Your task to perform on an android device: change timer sound Image 0: 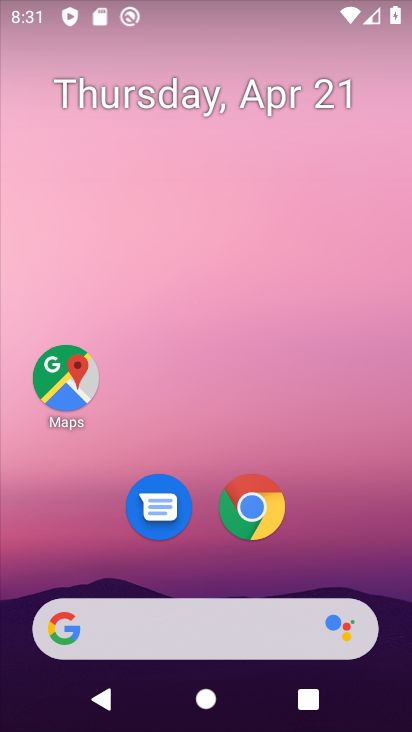
Step 0: drag from (193, 595) to (213, 237)
Your task to perform on an android device: change timer sound Image 1: 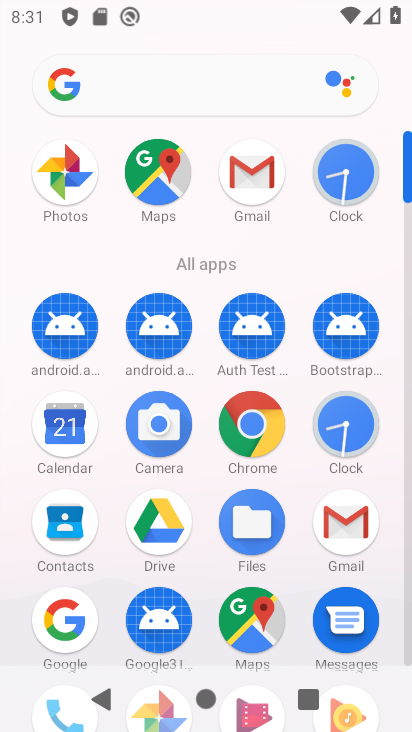
Step 1: click (352, 183)
Your task to perform on an android device: change timer sound Image 2: 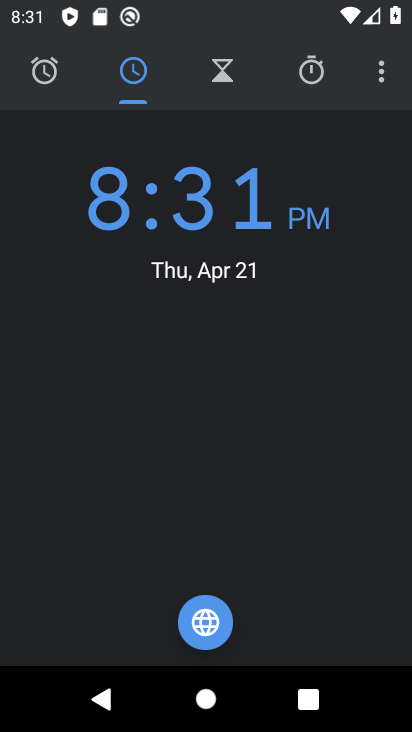
Step 2: click (385, 67)
Your task to perform on an android device: change timer sound Image 3: 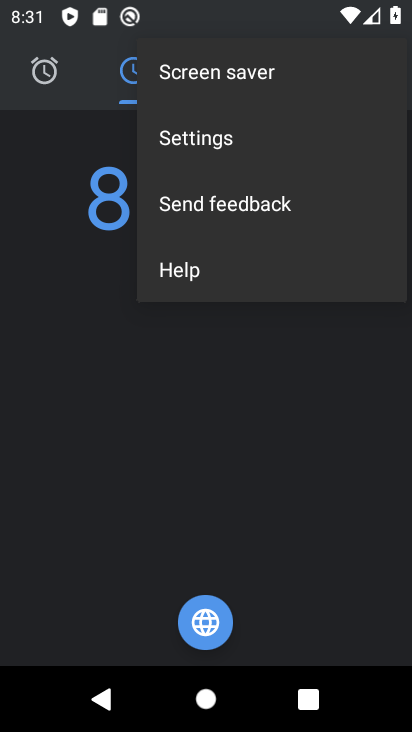
Step 3: click (219, 138)
Your task to perform on an android device: change timer sound Image 4: 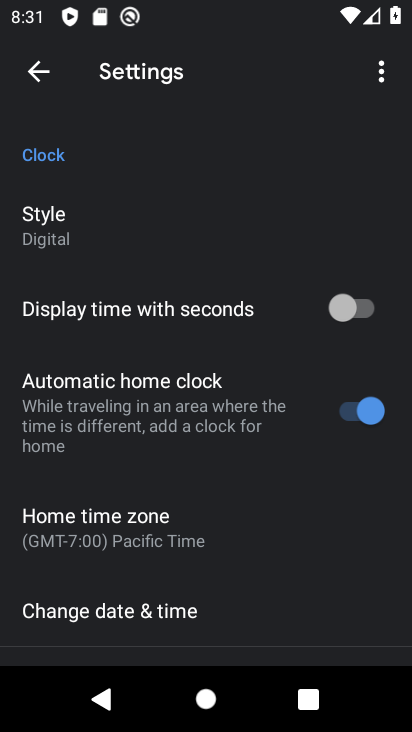
Step 4: drag from (126, 620) to (207, 285)
Your task to perform on an android device: change timer sound Image 5: 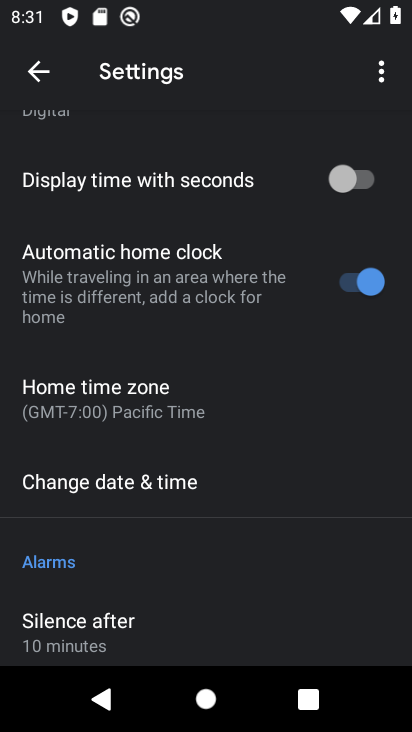
Step 5: drag from (177, 584) to (205, 152)
Your task to perform on an android device: change timer sound Image 6: 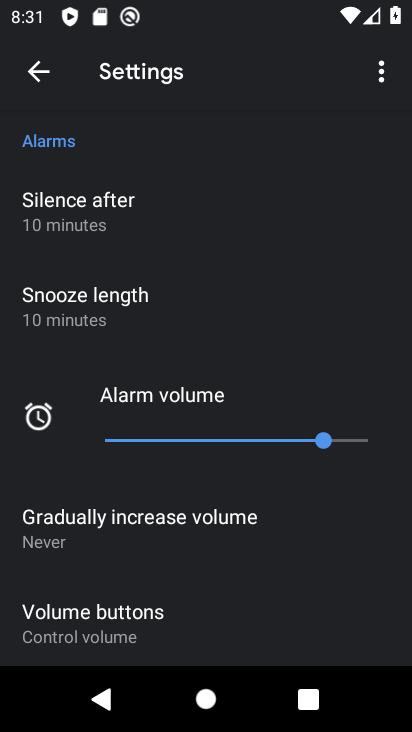
Step 6: drag from (123, 552) to (128, 242)
Your task to perform on an android device: change timer sound Image 7: 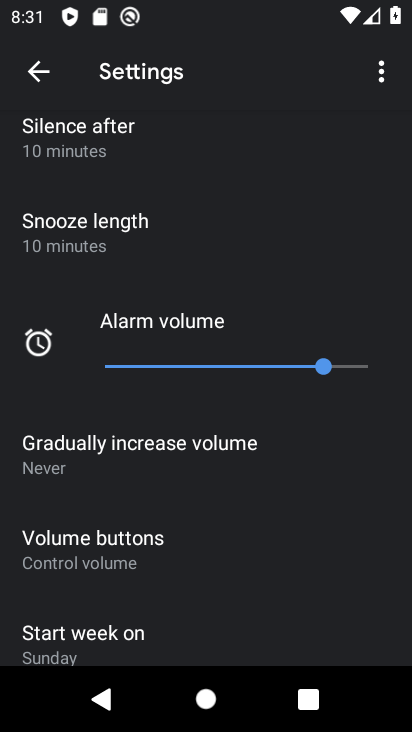
Step 7: drag from (132, 580) to (137, 119)
Your task to perform on an android device: change timer sound Image 8: 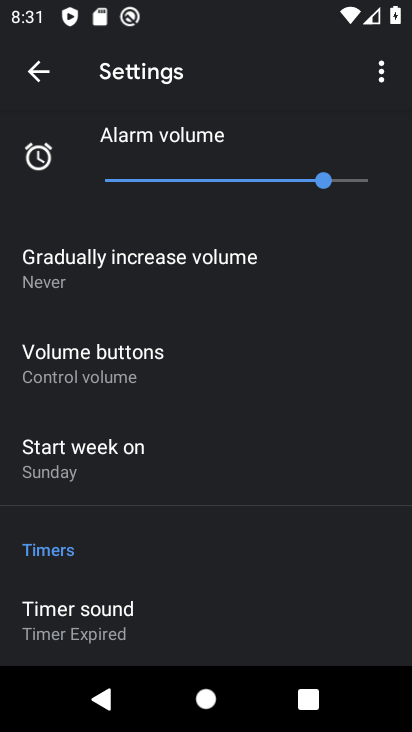
Step 8: click (92, 643)
Your task to perform on an android device: change timer sound Image 9: 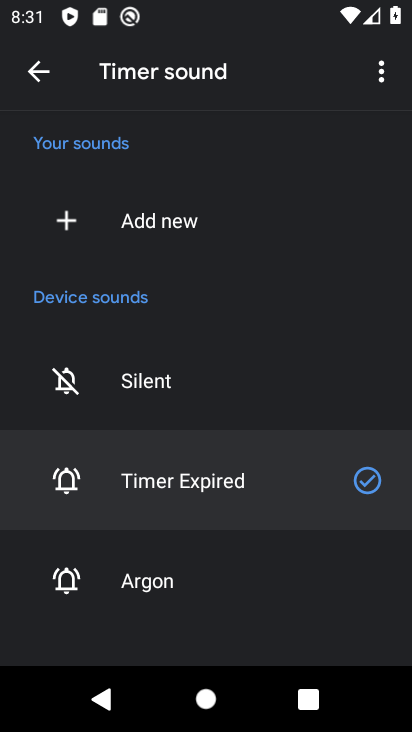
Step 9: click (145, 582)
Your task to perform on an android device: change timer sound Image 10: 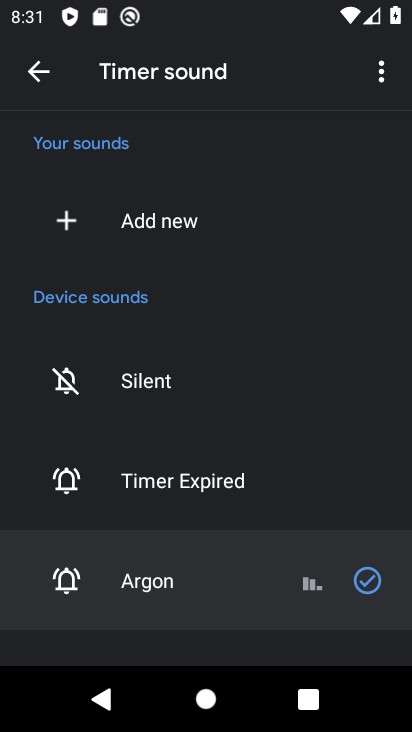
Step 10: task complete